Your task to perform on an android device: see creations saved in the google photos Image 0: 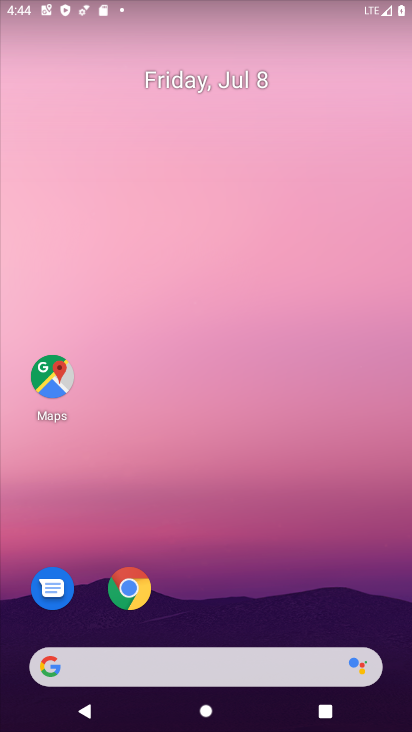
Step 0: drag from (233, 610) to (295, 6)
Your task to perform on an android device: see creations saved in the google photos Image 1: 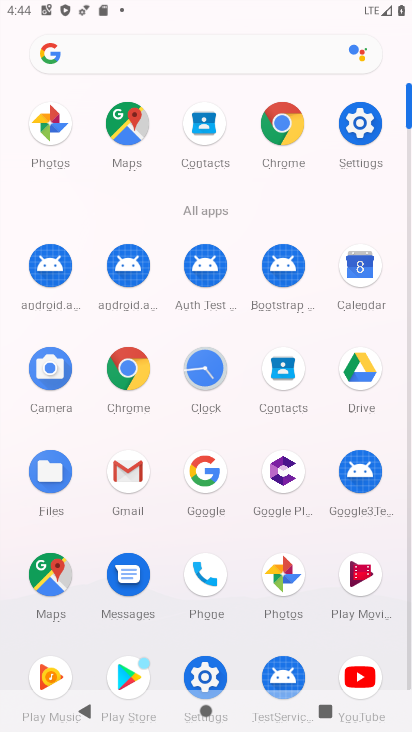
Step 1: click (287, 582)
Your task to perform on an android device: see creations saved in the google photos Image 2: 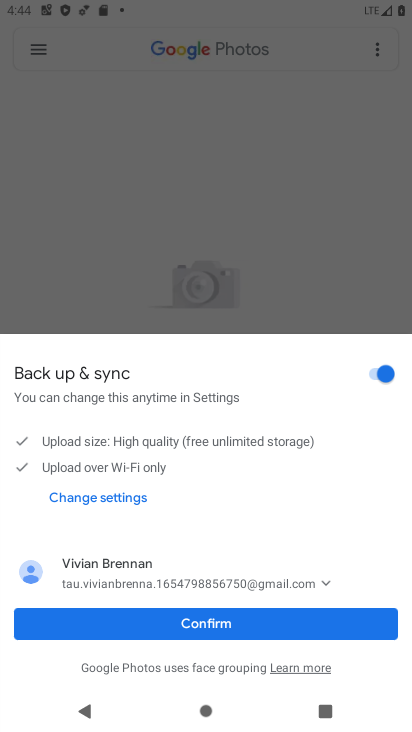
Step 2: click (207, 609)
Your task to perform on an android device: see creations saved in the google photos Image 3: 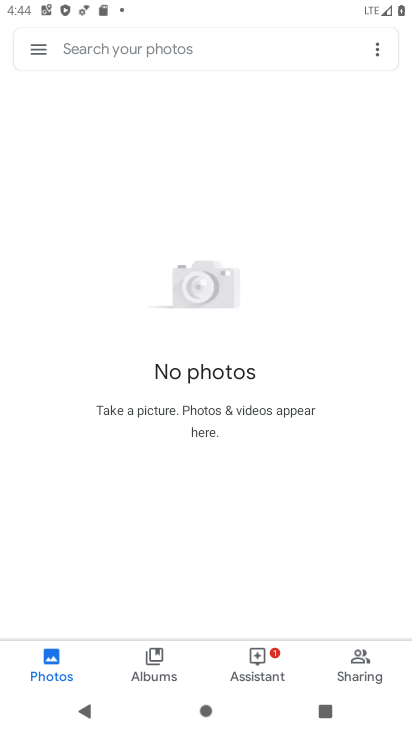
Step 3: click (201, 47)
Your task to perform on an android device: see creations saved in the google photos Image 4: 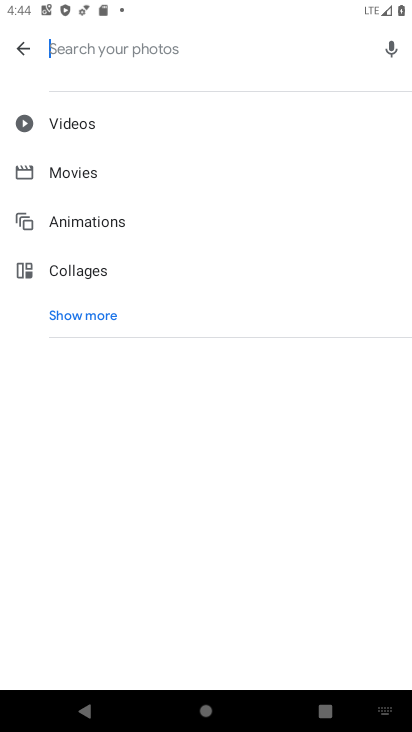
Step 4: type "creations"
Your task to perform on an android device: see creations saved in the google photos Image 5: 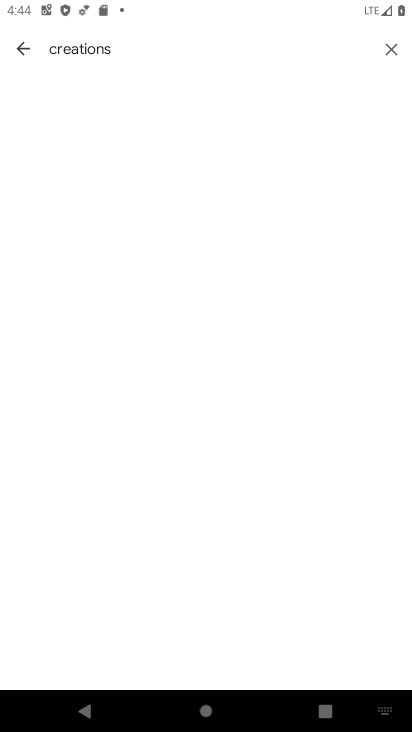
Step 5: task complete